Your task to perform on an android device: Go to Android settings Image 0: 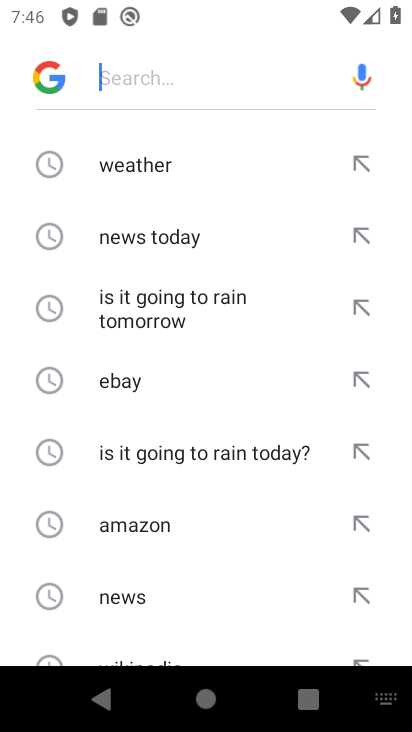
Step 0: press home button
Your task to perform on an android device: Go to Android settings Image 1: 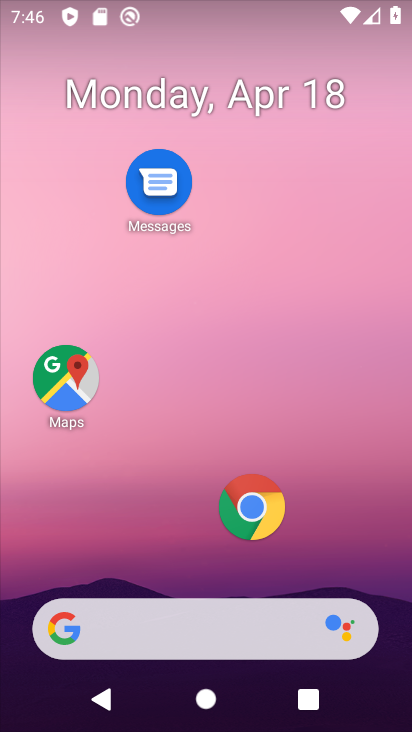
Step 1: drag from (196, 597) to (259, 185)
Your task to perform on an android device: Go to Android settings Image 2: 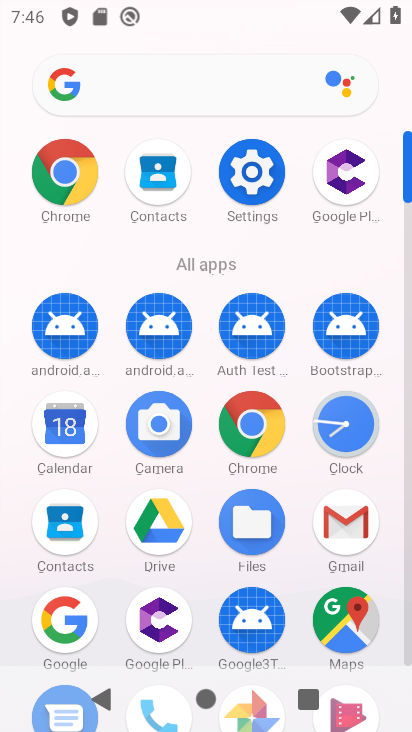
Step 2: click (254, 172)
Your task to perform on an android device: Go to Android settings Image 3: 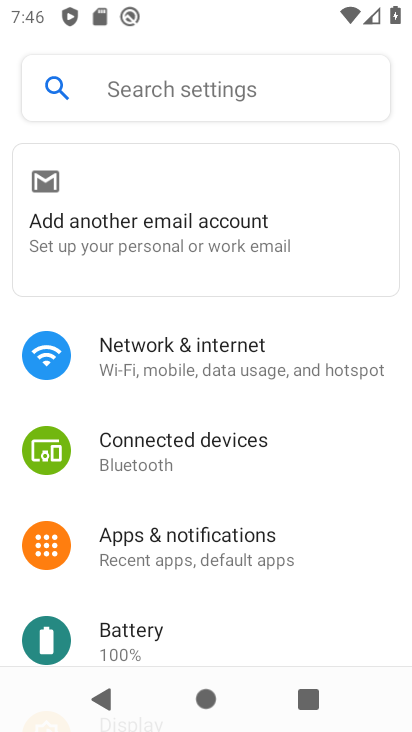
Step 3: drag from (131, 635) to (212, 196)
Your task to perform on an android device: Go to Android settings Image 4: 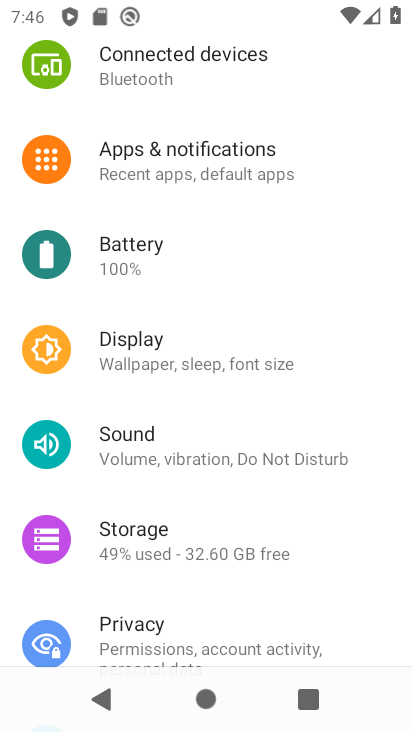
Step 4: drag from (207, 612) to (206, 219)
Your task to perform on an android device: Go to Android settings Image 5: 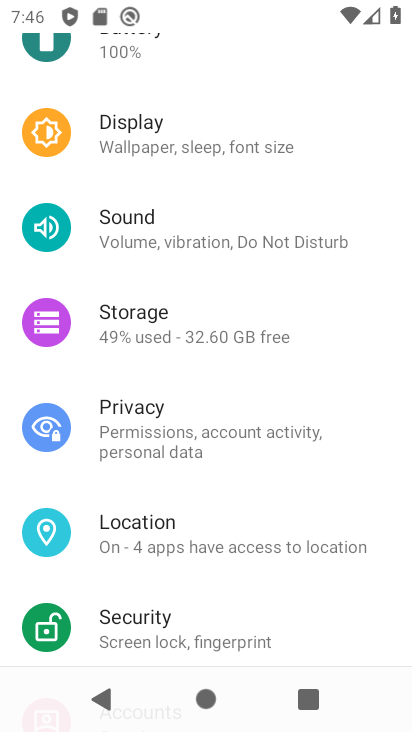
Step 5: drag from (203, 637) to (208, 270)
Your task to perform on an android device: Go to Android settings Image 6: 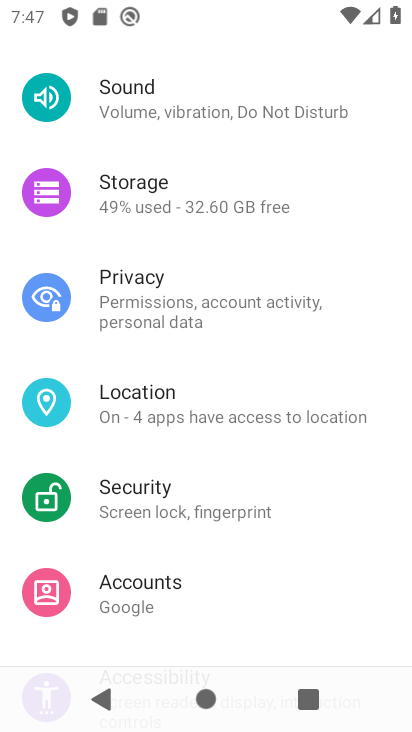
Step 6: drag from (150, 628) to (188, 241)
Your task to perform on an android device: Go to Android settings Image 7: 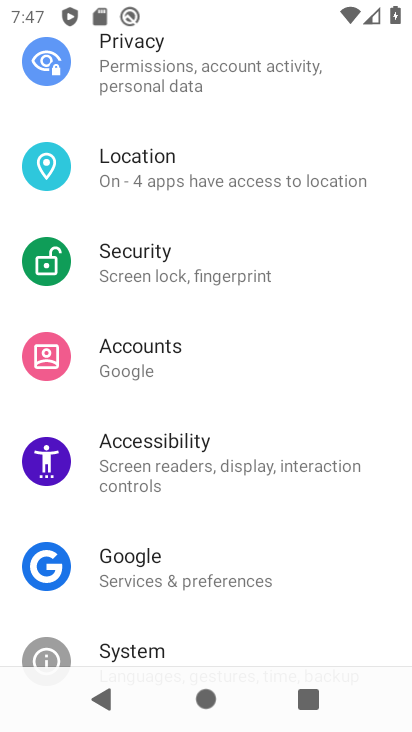
Step 7: drag from (190, 645) to (211, 294)
Your task to perform on an android device: Go to Android settings Image 8: 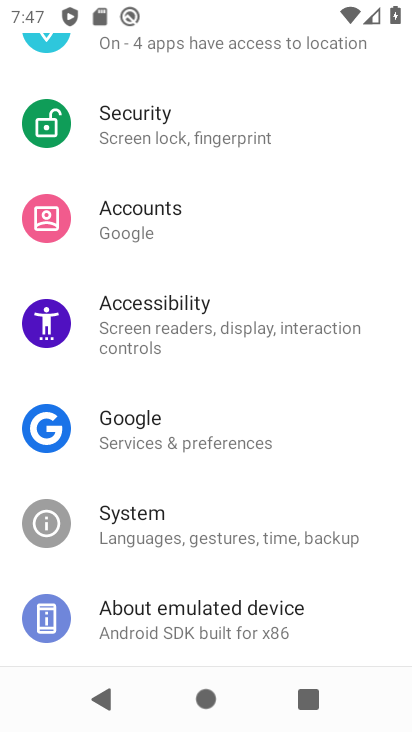
Step 8: click (179, 630)
Your task to perform on an android device: Go to Android settings Image 9: 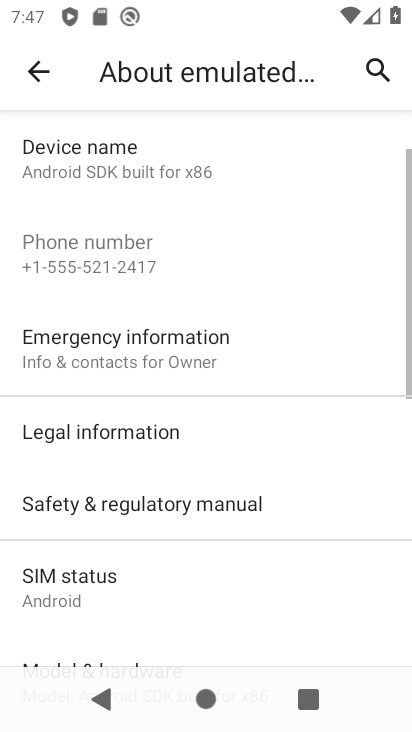
Step 9: drag from (182, 627) to (229, 292)
Your task to perform on an android device: Go to Android settings Image 10: 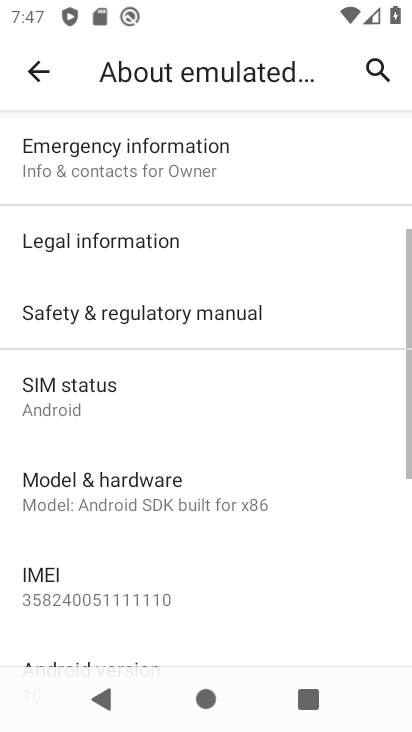
Step 10: drag from (175, 623) to (175, 342)
Your task to perform on an android device: Go to Android settings Image 11: 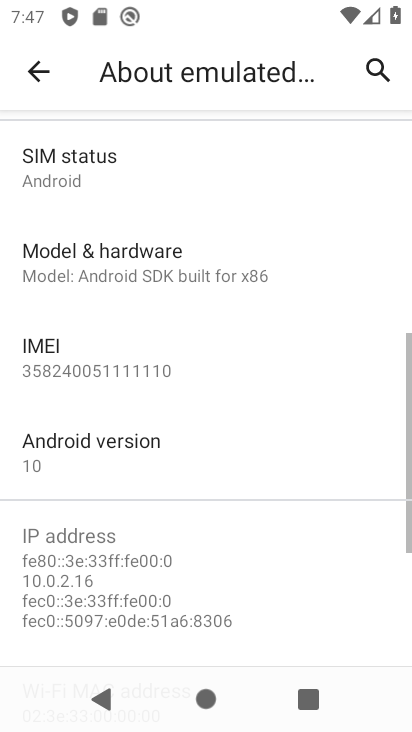
Step 11: click (40, 67)
Your task to perform on an android device: Go to Android settings Image 12: 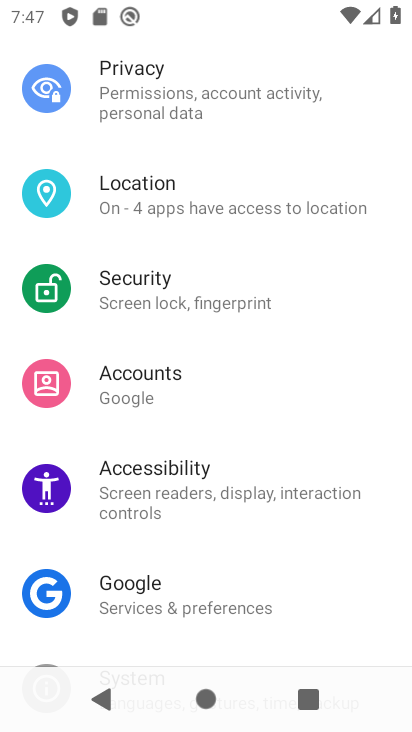
Step 12: task complete